Your task to perform on an android device: delete browsing data in the chrome app Image 0: 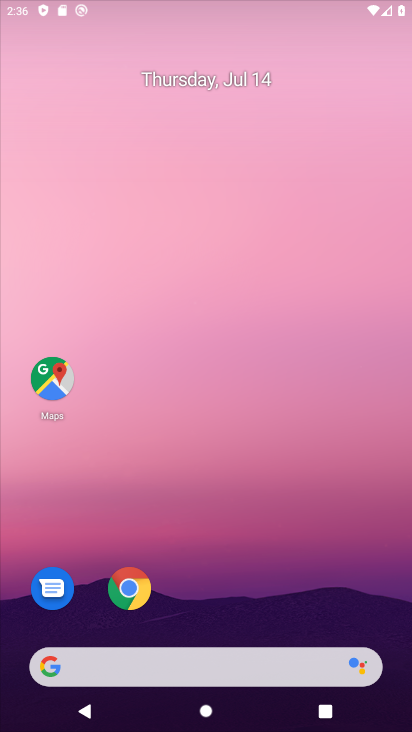
Step 0: drag from (201, 661) to (211, 242)
Your task to perform on an android device: delete browsing data in the chrome app Image 1: 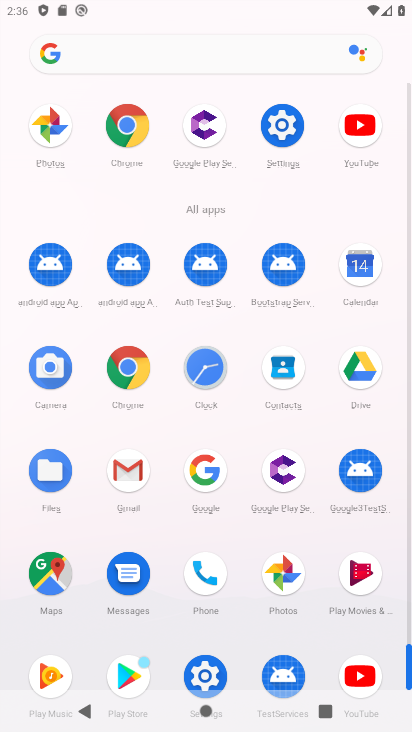
Step 1: click (128, 393)
Your task to perform on an android device: delete browsing data in the chrome app Image 2: 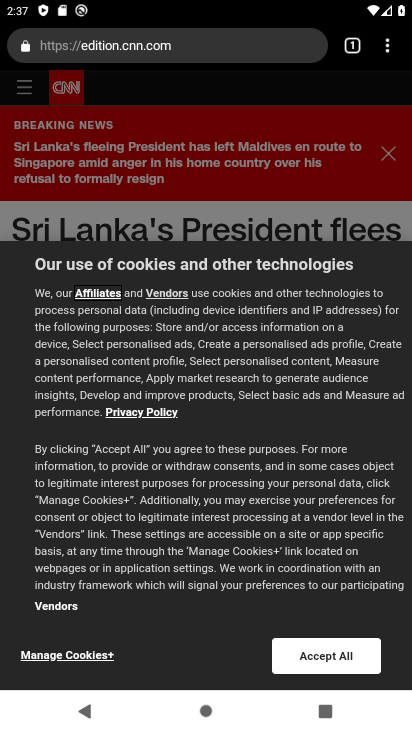
Step 2: drag from (390, 45) to (334, 0)
Your task to perform on an android device: delete browsing data in the chrome app Image 3: 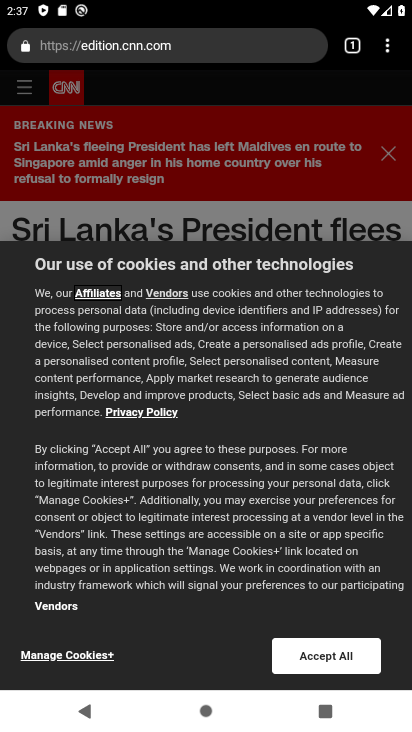
Step 3: drag from (383, 46) to (226, 262)
Your task to perform on an android device: delete browsing data in the chrome app Image 4: 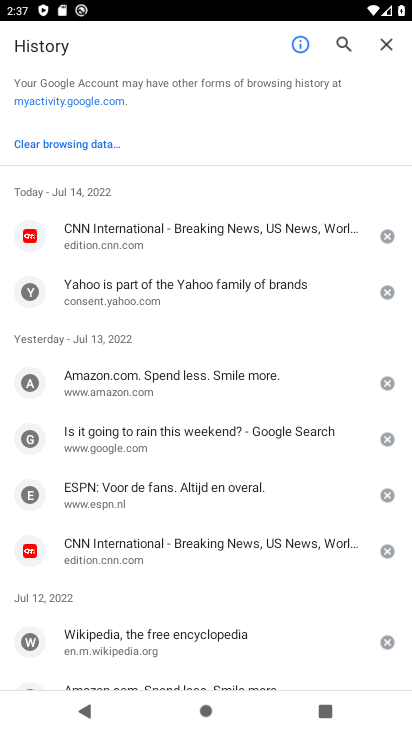
Step 4: click (107, 144)
Your task to perform on an android device: delete browsing data in the chrome app Image 5: 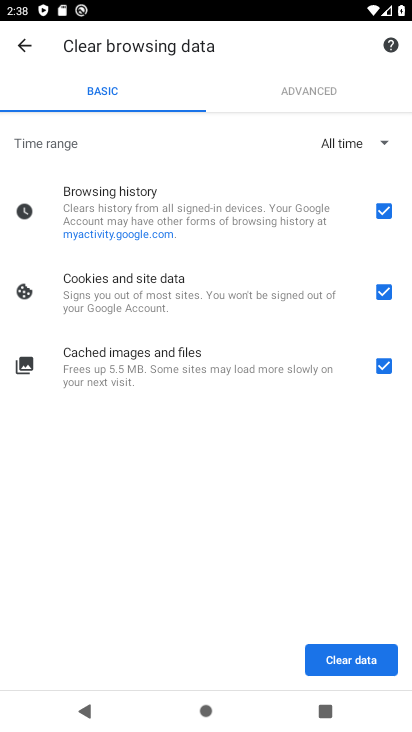
Step 5: click (339, 653)
Your task to perform on an android device: delete browsing data in the chrome app Image 6: 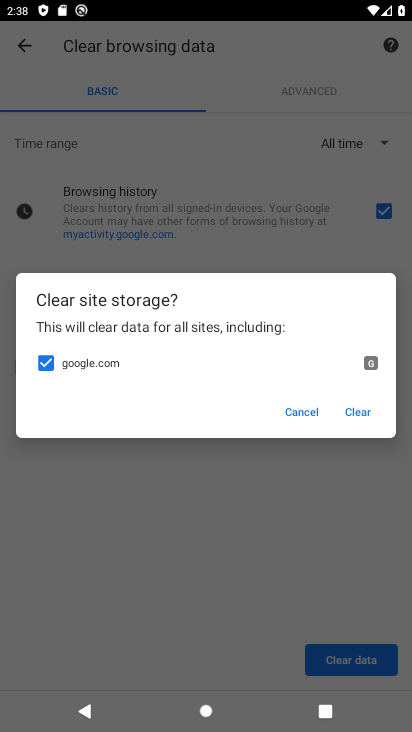
Step 6: click (351, 417)
Your task to perform on an android device: delete browsing data in the chrome app Image 7: 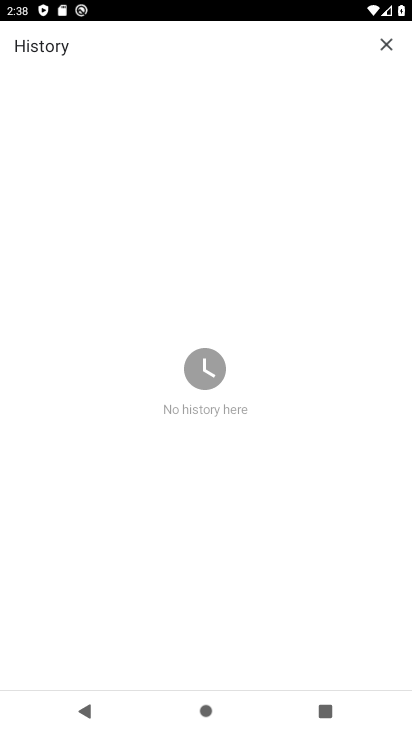
Step 7: task complete